Your task to perform on an android device: allow cookies in the chrome app Image 0: 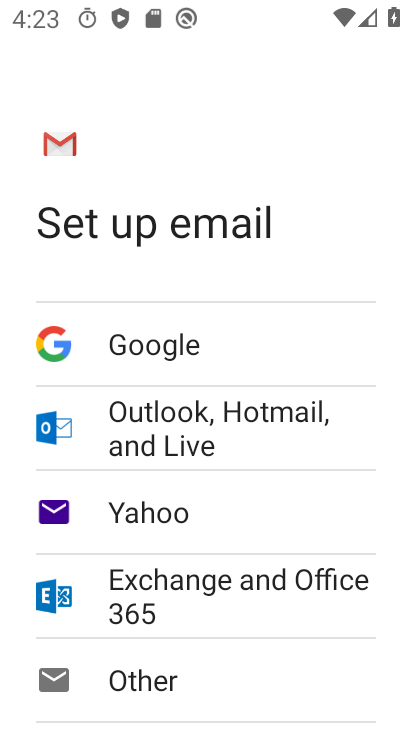
Step 0: press home button
Your task to perform on an android device: allow cookies in the chrome app Image 1: 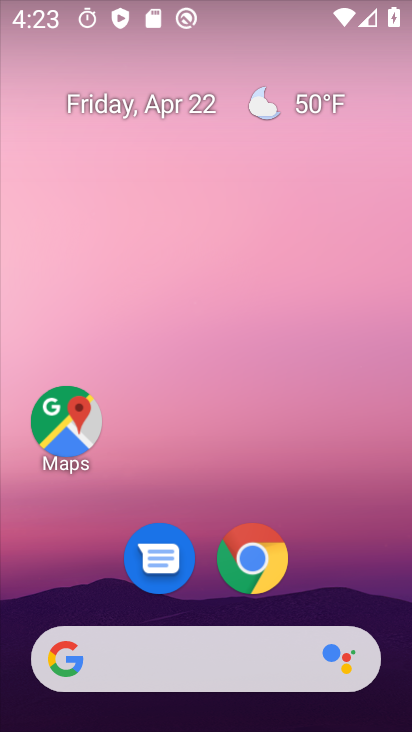
Step 1: drag from (321, 570) to (299, 143)
Your task to perform on an android device: allow cookies in the chrome app Image 2: 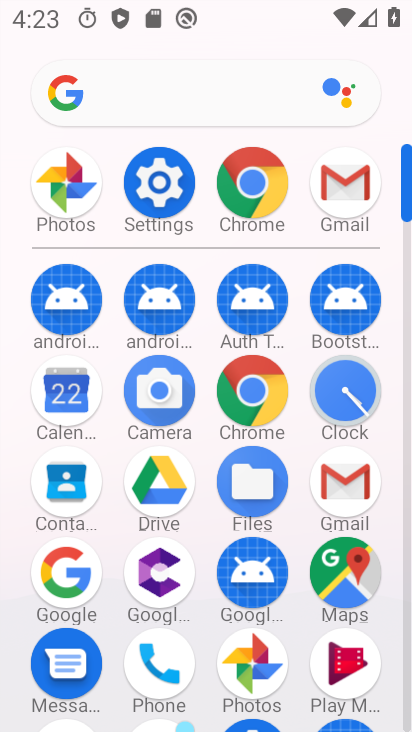
Step 2: click (260, 403)
Your task to perform on an android device: allow cookies in the chrome app Image 3: 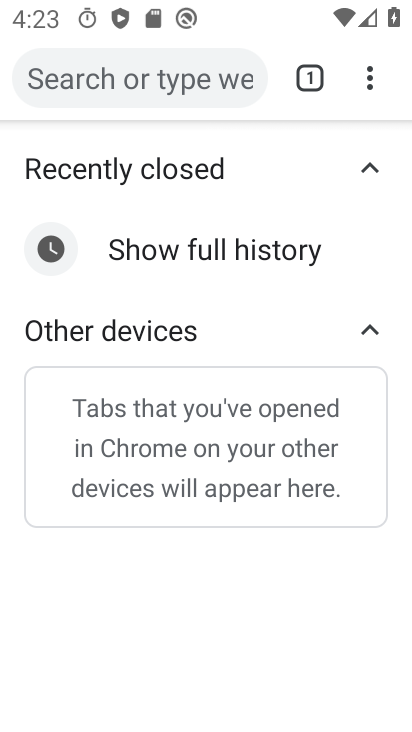
Step 3: click (367, 78)
Your task to perform on an android device: allow cookies in the chrome app Image 4: 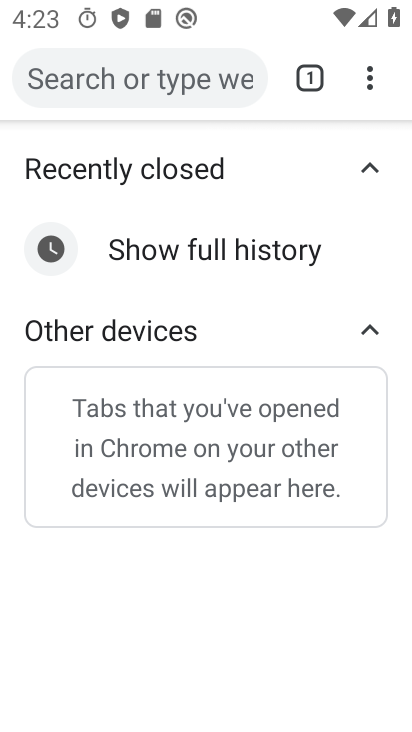
Step 4: click (372, 78)
Your task to perform on an android device: allow cookies in the chrome app Image 5: 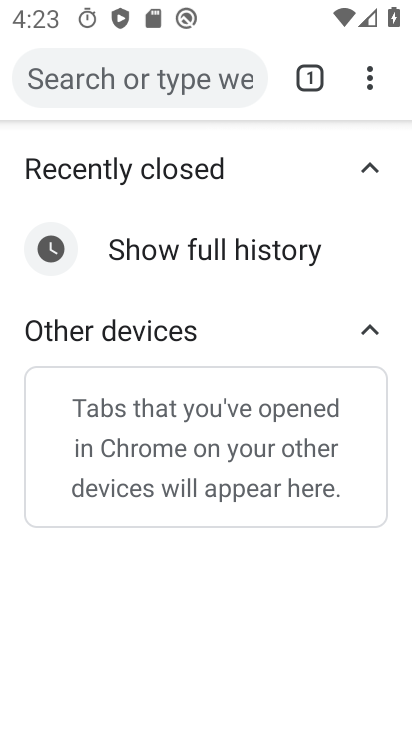
Step 5: click (373, 79)
Your task to perform on an android device: allow cookies in the chrome app Image 6: 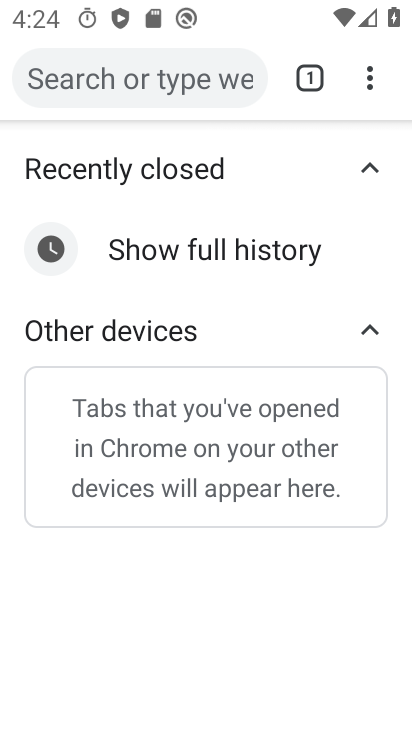
Step 6: click (369, 79)
Your task to perform on an android device: allow cookies in the chrome app Image 7: 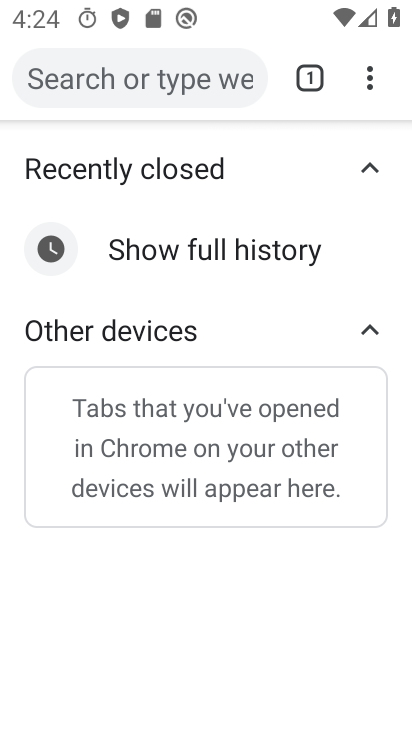
Step 7: click (369, 73)
Your task to perform on an android device: allow cookies in the chrome app Image 8: 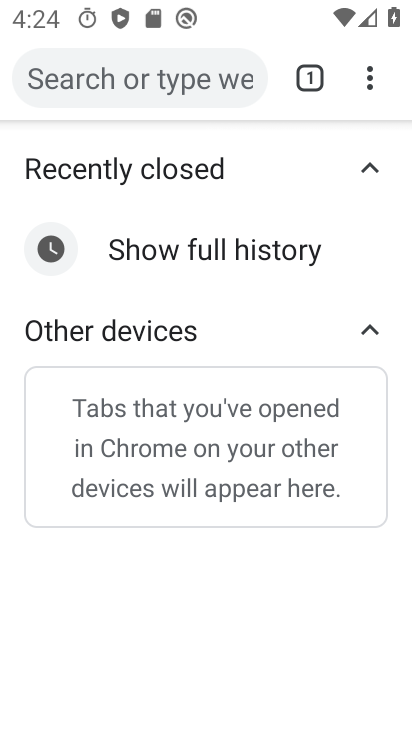
Step 8: click (375, 72)
Your task to perform on an android device: allow cookies in the chrome app Image 9: 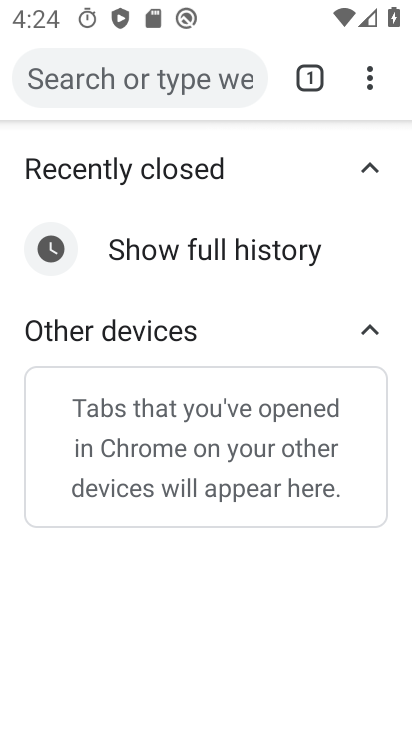
Step 9: click (371, 77)
Your task to perform on an android device: allow cookies in the chrome app Image 10: 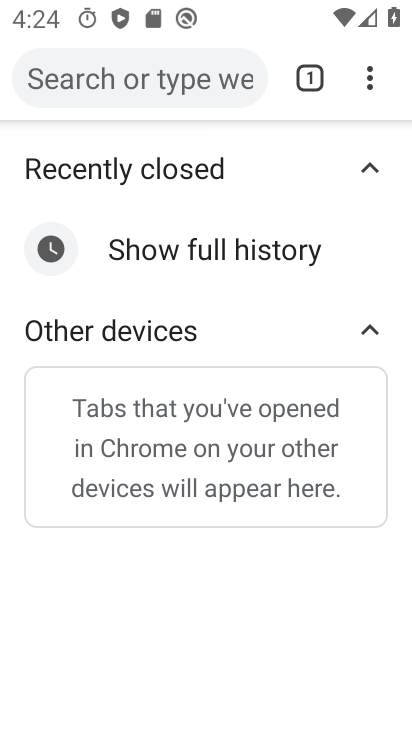
Step 10: click (373, 79)
Your task to perform on an android device: allow cookies in the chrome app Image 11: 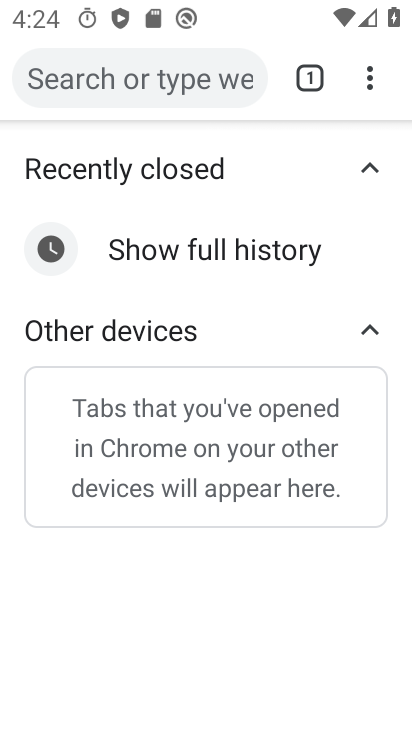
Step 11: click (366, 77)
Your task to perform on an android device: allow cookies in the chrome app Image 12: 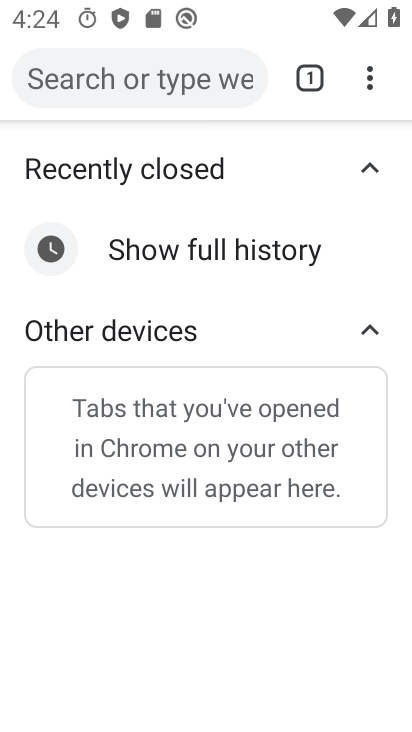
Step 12: click (371, 79)
Your task to perform on an android device: allow cookies in the chrome app Image 13: 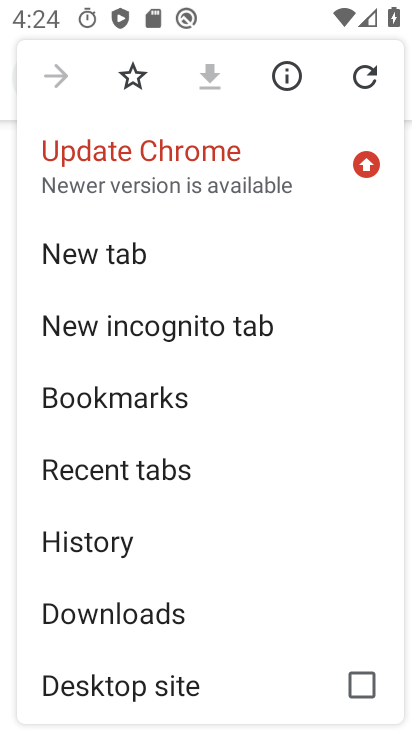
Step 13: drag from (216, 662) to (211, 365)
Your task to perform on an android device: allow cookies in the chrome app Image 14: 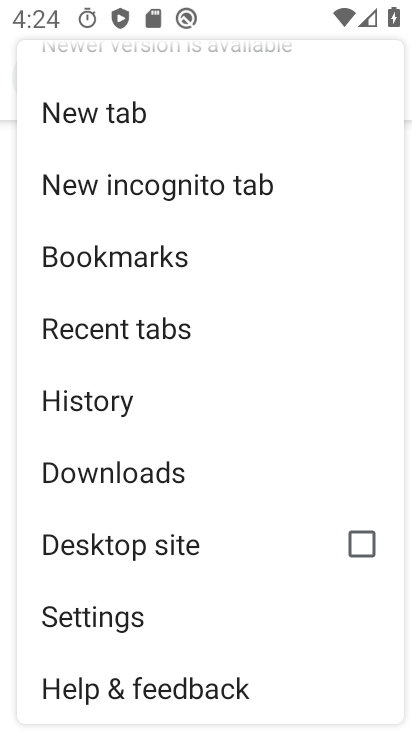
Step 14: click (98, 629)
Your task to perform on an android device: allow cookies in the chrome app Image 15: 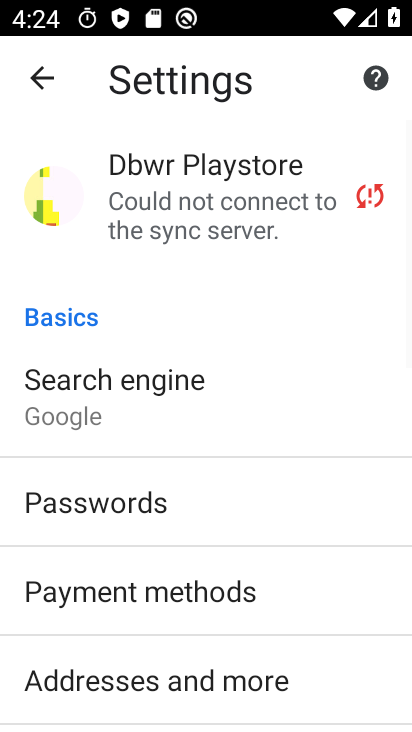
Step 15: drag from (192, 620) to (232, 357)
Your task to perform on an android device: allow cookies in the chrome app Image 16: 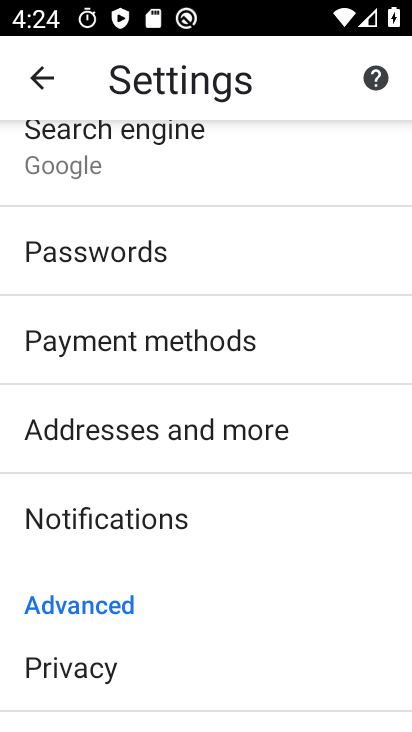
Step 16: drag from (187, 657) to (242, 326)
Your task to perform on an android device: allow cookies in the chrome app Image 17: 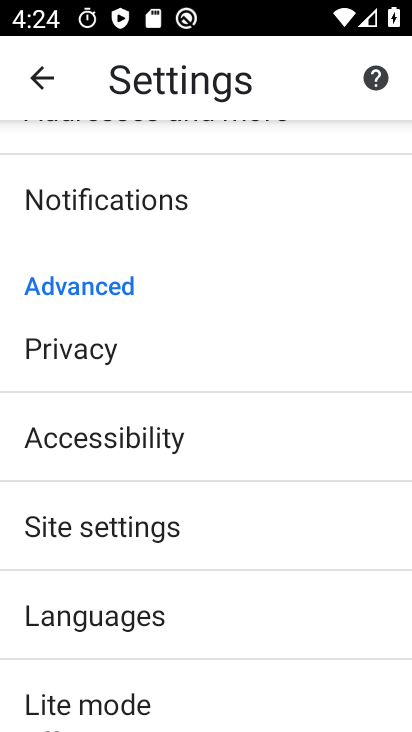
Step 17: click (113, 538)
Your task to perform on an android device: allow cookies in the chrome app Image 18: 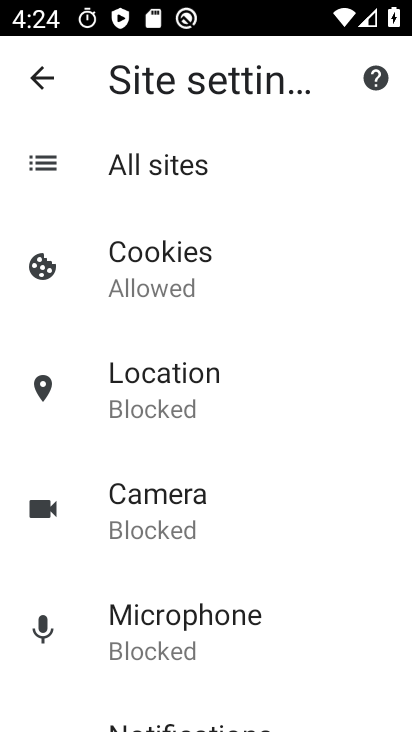
Step 18: drag from (259, 661) to (243, 310)
Your task to perform on an android device: allow cookies in the chrome app Image 19: 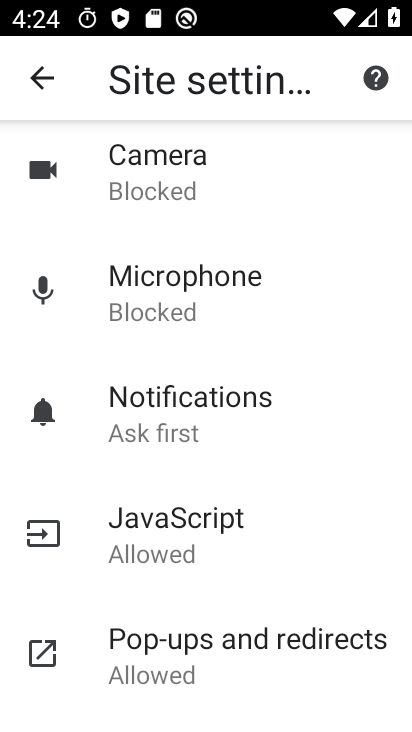
Step 19: drag from (238, 606) to (220, 340)
Your task to perform on an android device: allow cookies in the chrome app Image 20: 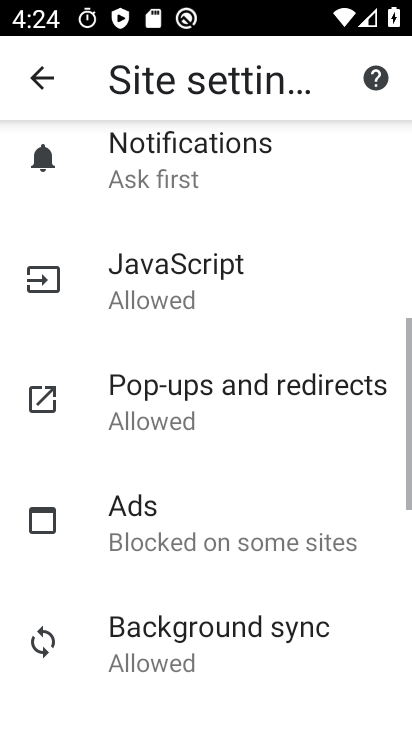
Step 20: drag from (263, 261) to (232, 624)
Your task to perform on an android device: allow cookies in the chrome app Image 21: 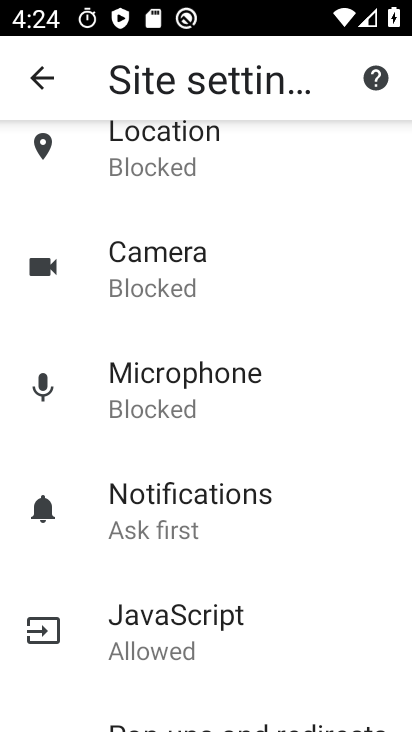
Step 21: drag from (268, 349) to (225, 607)
Your task to perform on an android device: allow cookies in the chrome app Image 22: 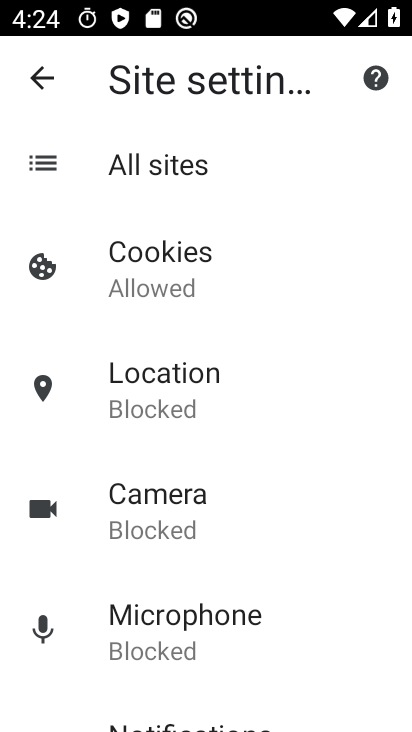
Step 22: click (182, 276)
Your task to perform on an android device: allow cookies in the chrome app Image 23: 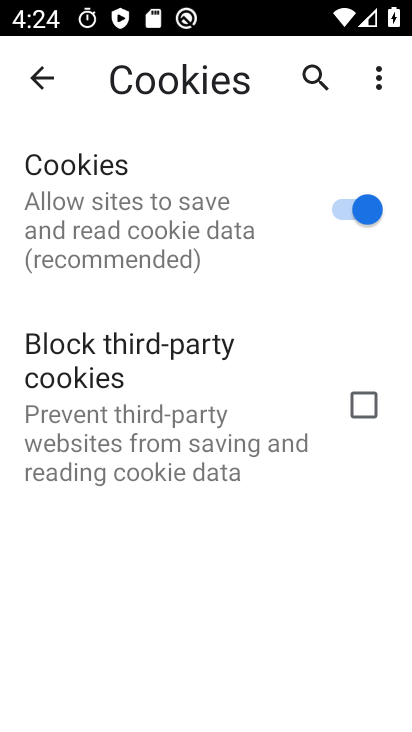
Step 23: task complete